Your task to perform on an android device: see sites visited before in the chrome app Image 0: 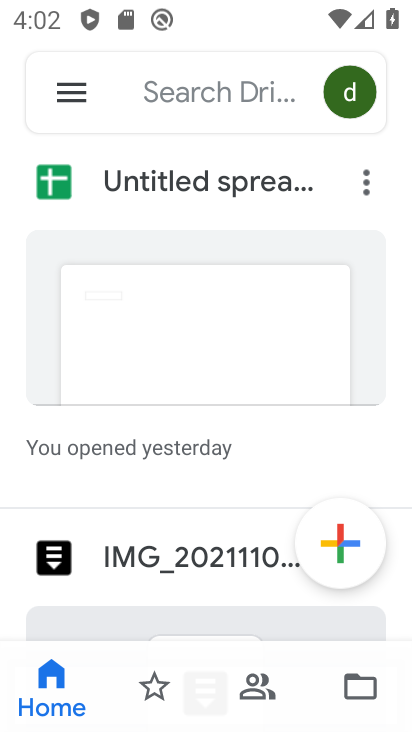
Step 0: press home button
Your task to perform on an android device: see sites visited before in the chrome app Image 1: 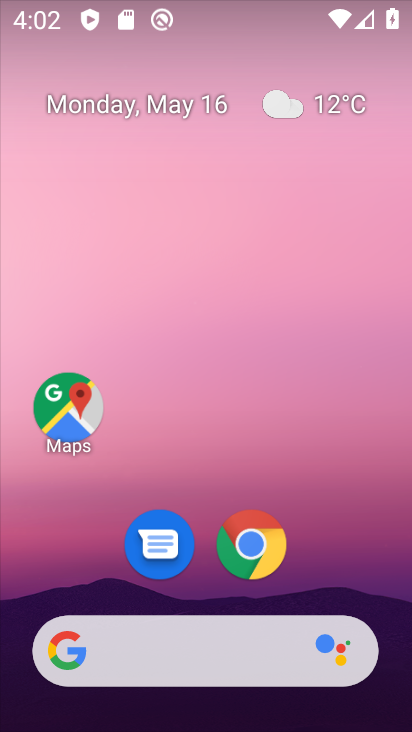
Step 1: click (249, 538)
Your task to perform on an android device: see sites visited before in the chrome app Image 2: 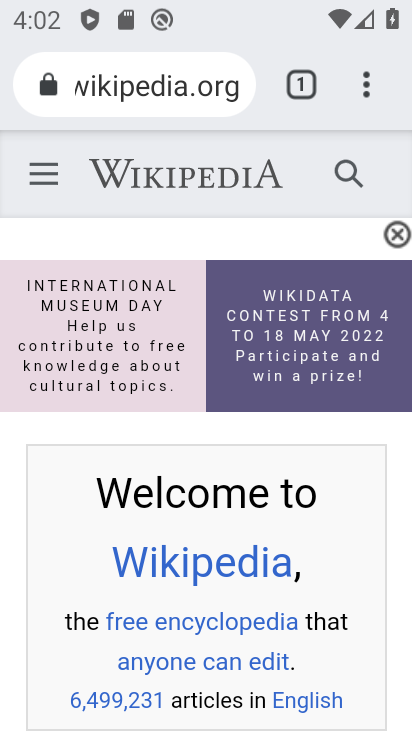
Step 2: click (369, 83)
Your task to perform on an android device: see sites visited before in the chrome app Image 3: 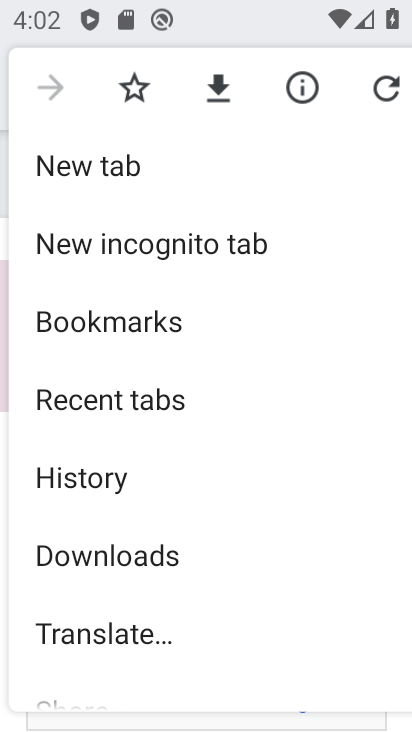
Step 3: click (70, 474)
Your task to perform on an android device: see sites visited before in the chrome app Image 4: 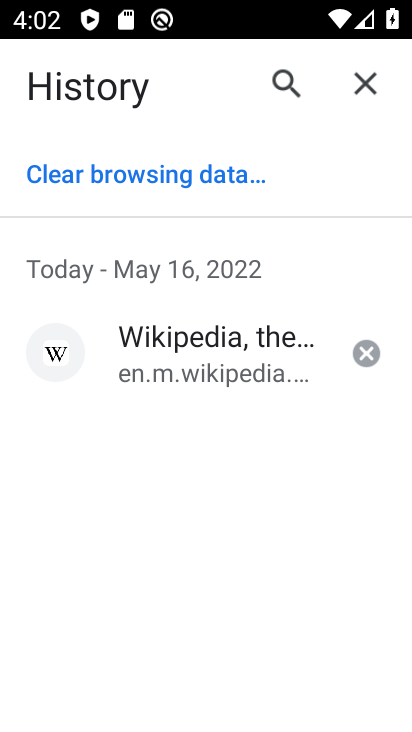
Step 4: task complete